Your task to perform on an android device: Open notification settings Image 0: 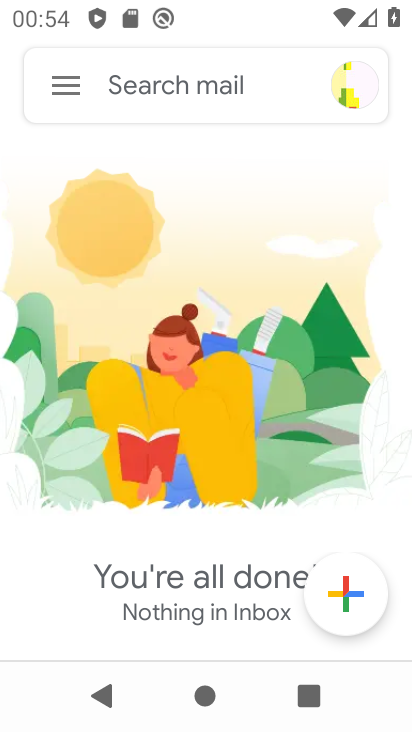
Step 0: press home button
Your task to perform on an android device: Open notification settings Image 1: 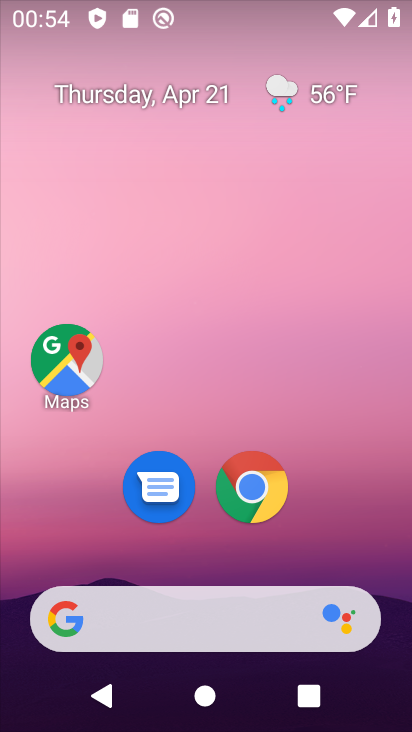
Step 1: drag from (312, 560) to (298, 141)
Your task to perform on an android device: Open notification settings Image 2: 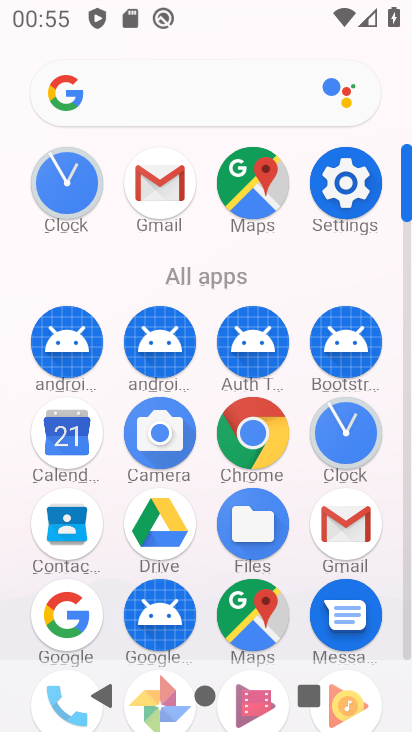
Step 2: click (338, 187)
Your task to perform on an android device: Open notification settings Image 3: 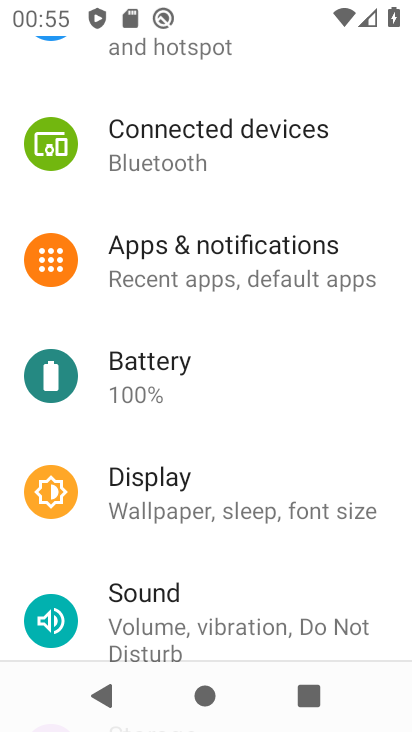
Step 3: click (295, 263)
Your task to perform on an android device: Open notification settings Image 4: 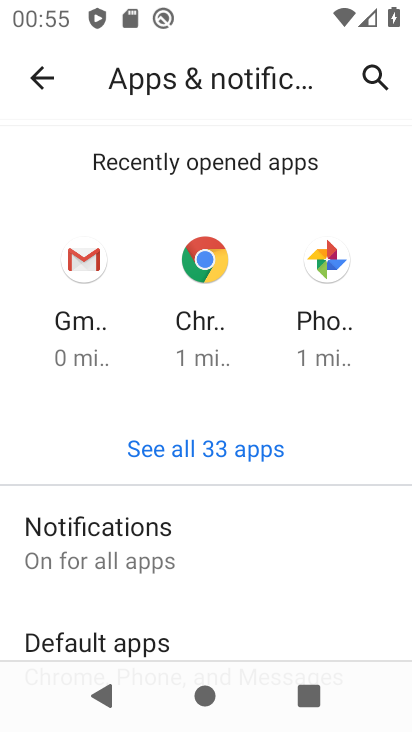
Step 4: click (212, 554)
Your task to perform on an android device: Open notification settings Image 5: 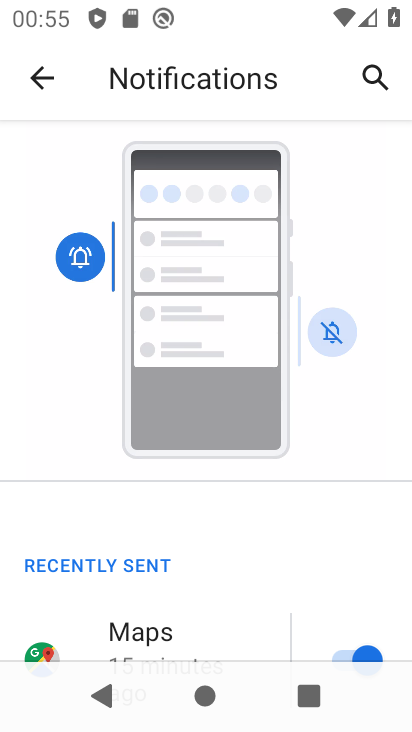
Step 5: task complete